Your task to perform on an android device: Go to display settings Image 0: 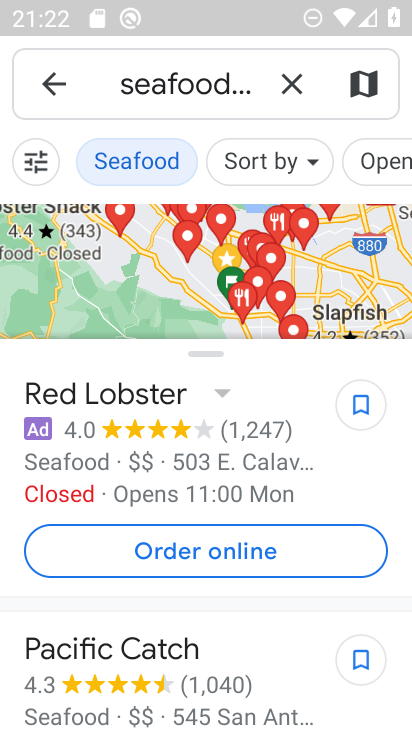
Step 0: press home button
Your task to perform on an android device: Go to display settings Image 1: 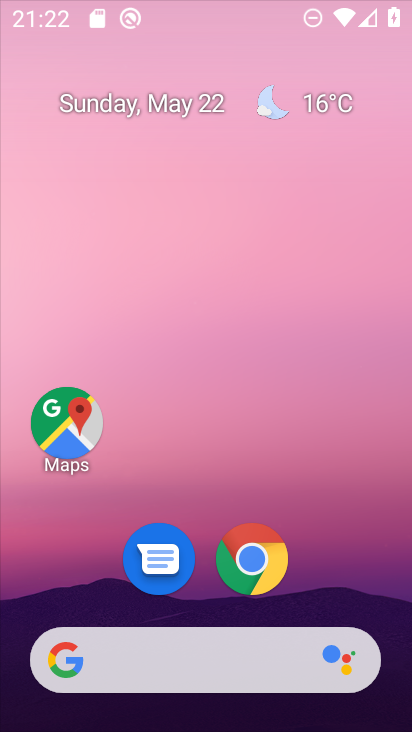
Step 1: drag from (231, 644) to (195, 206)
Your task to perform on an android device: Go to display settings Image 2: 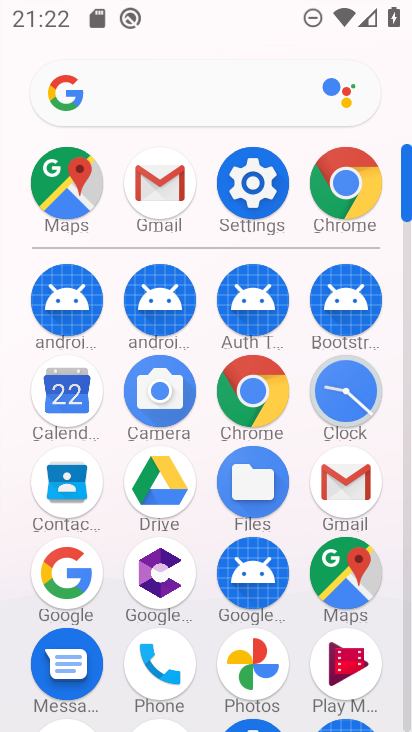
Step 2: click (234, 194)
Your task to perform on an android device: Go to display settings Image 3: 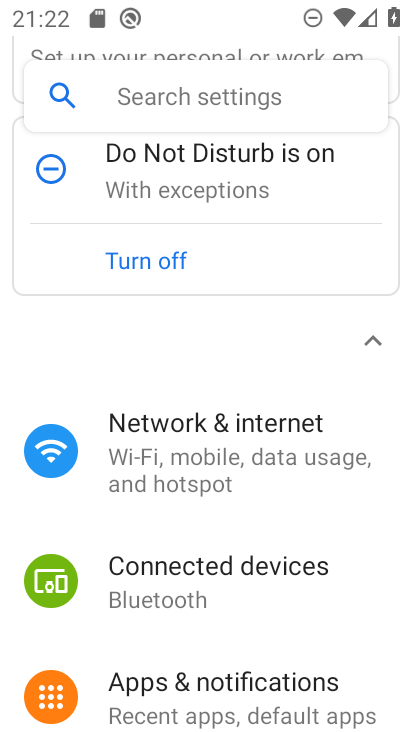
Step 3: drag from (274, 467) to (260, 228)
Your task to perform on an android device: Go to display settings Image 4: 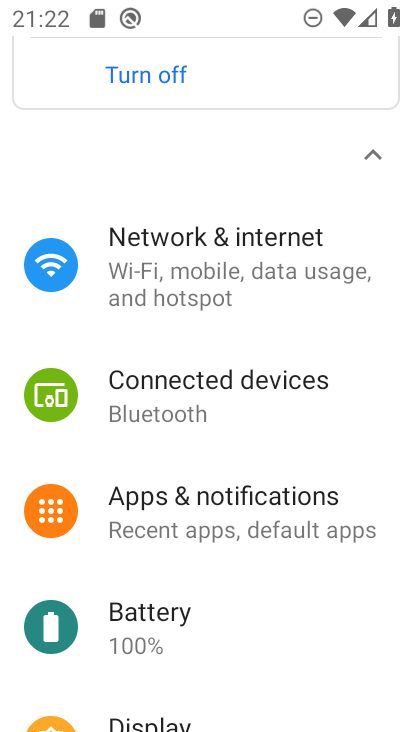
Step 4: click (189, 712)
Your task to perform on an android device: Go to display settings Image 5: 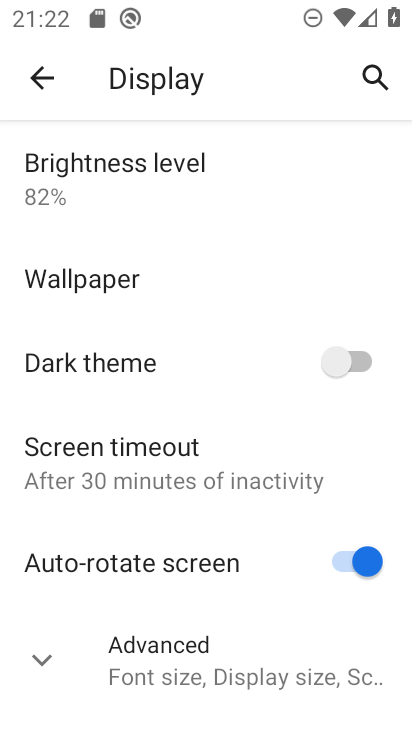
Step 5: task complete